Your task to perform on an android device: turn vacation reply on in the gmail app Image 0: 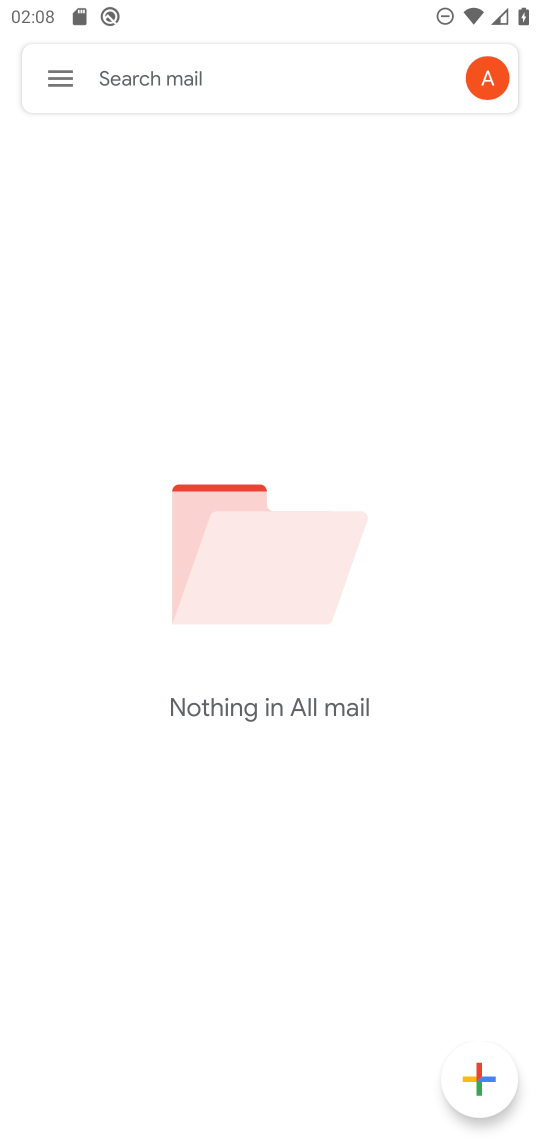
Step 0: press home button
Your task to perform on an android device: turn vacation reply on in the gmail app Image 1: 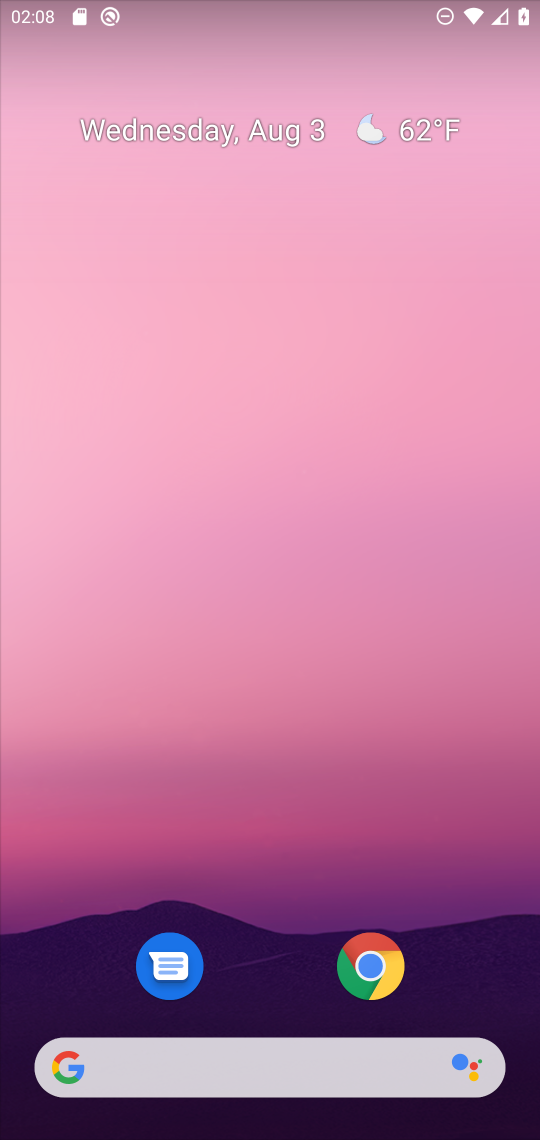
Step 1: drag from (287, 979) to (280, 355)
Your task to perform on an android device: turn vacation reply on in the gmail app Image 2: 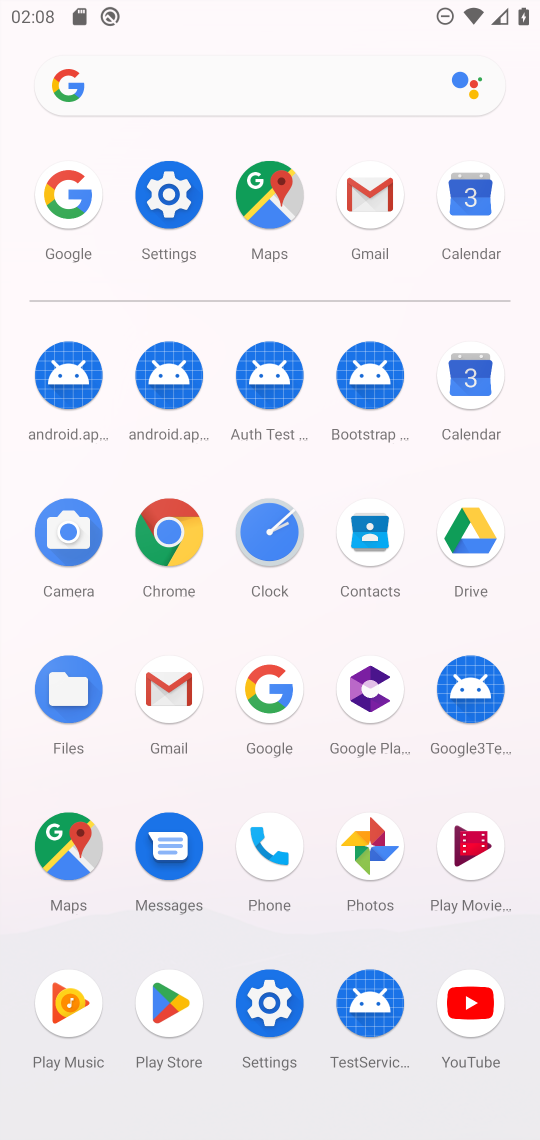
Step 2: click (359, 213)
Your task to perform on an android device: turn vacation reply on in the gmail app Image 3: 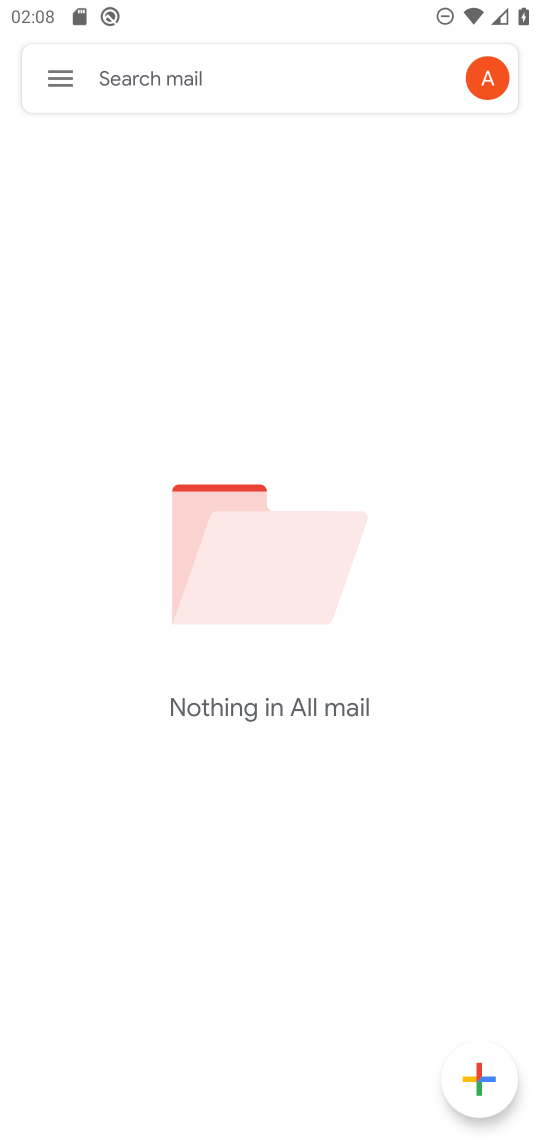
Step 3: click (56, 90)
Your task to perform on an android device: turn vacation reply on in the gmail app Image 4: 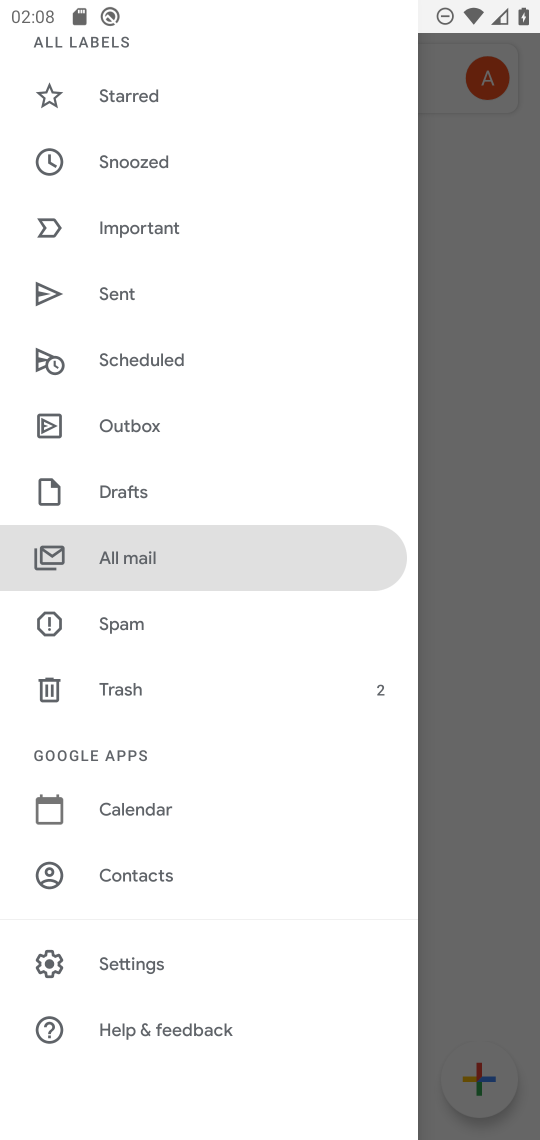
Step 4: click (140, 952)
Your task to perform on an android device: turn vacation reply on in the gmail app Image 5: 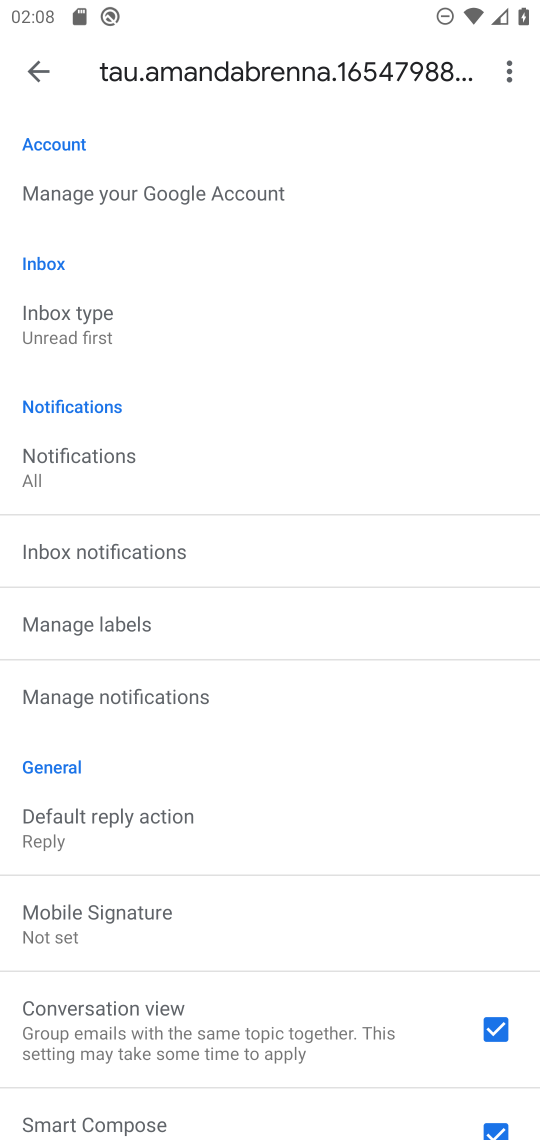
Step 5: drag from (215, 1036) to (262, 629)
Your task to perform on an android device: turn vacation reply on in the gmail app Image 6: 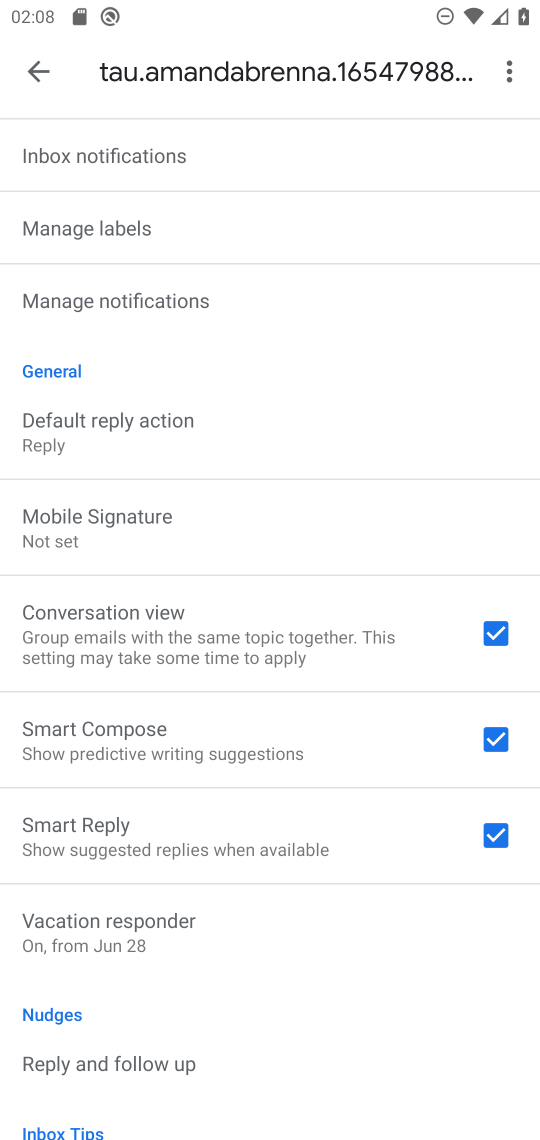
Step 6: click (201, 904)
Your task to perform on an android device: turn vacation reply on in the gmail app Image 7: 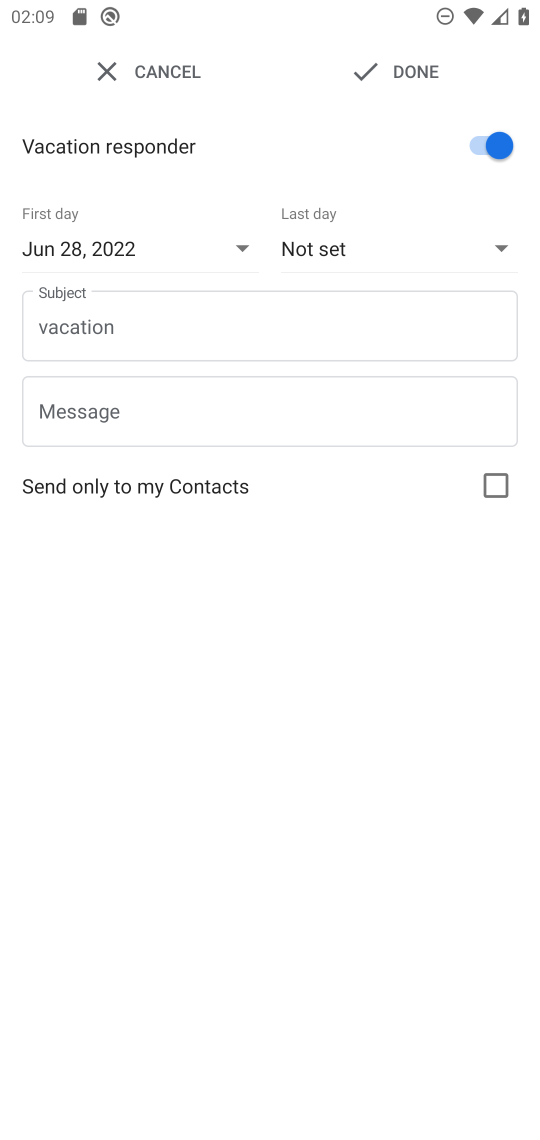
Step 7: task complete